Your task to perform on an android device: turn off smart reply in the gmail app Image 0: 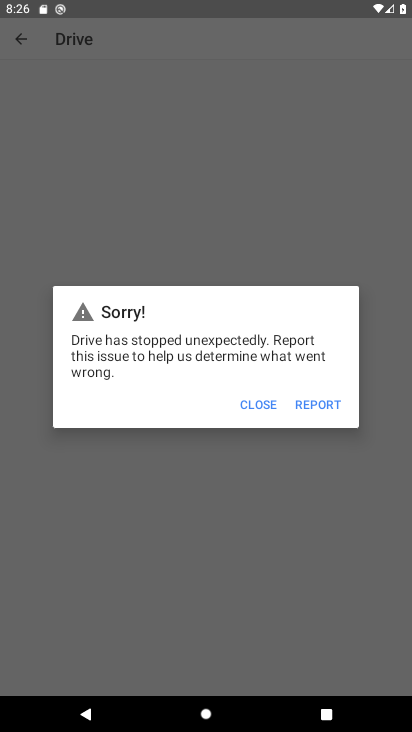
Step 0: press home button
Your task to perform on an android device: turn off smart reply in the gmail app Image 1: 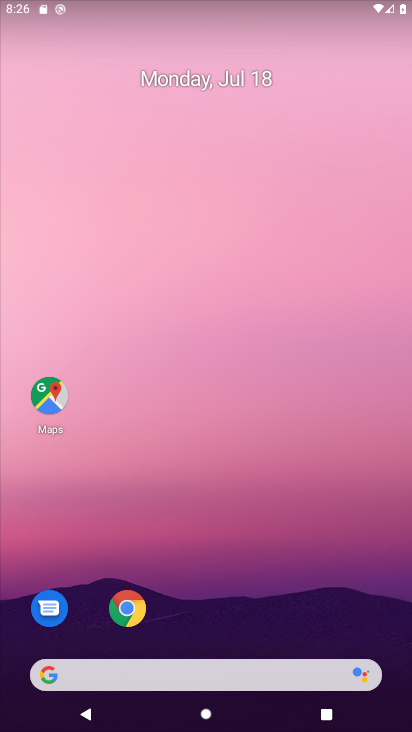
Step 1: drag from (174, 678) to (366, 143)
Your task to perform on an android device: turn off smart reply in the gmail app Image 2: 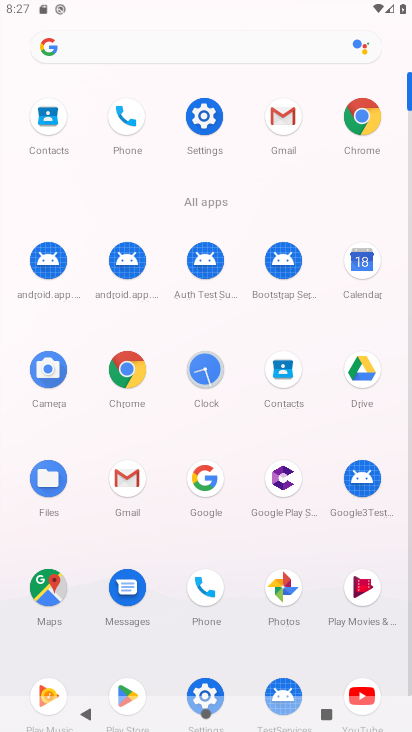
Step 2: click (284, 114)
Your task to perform on an android device: turn off smart reply in the gmail app Image 3: 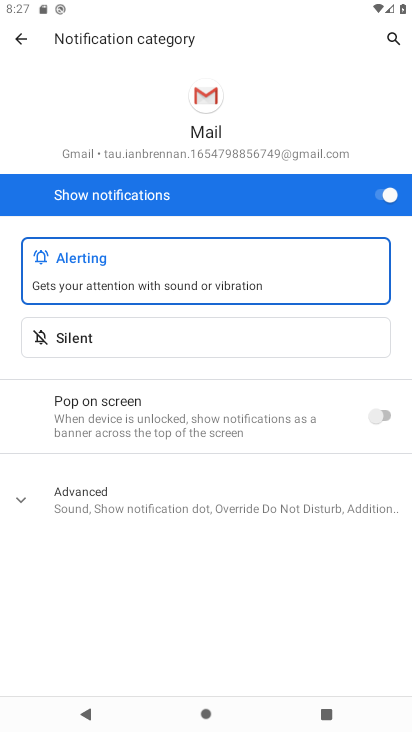
Step 3: press back button
Your task to perform on an android device: turn off smart reply in the gmail app Image 4: 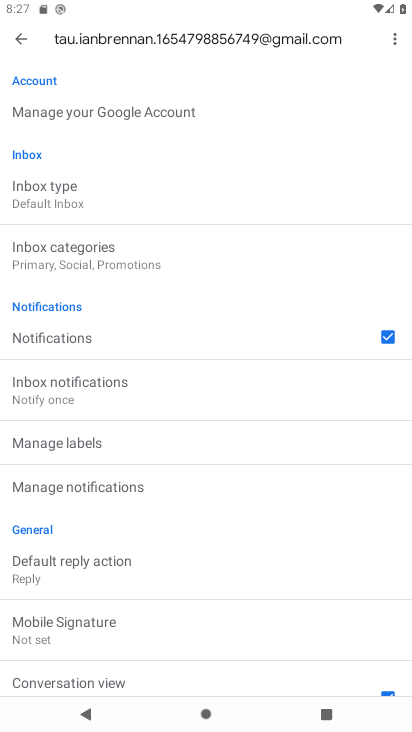
Step 4: drag from (87, 468) to (166, 358)
Your task to perform on an android device: turn off smart reply in the gmail app Image 5: 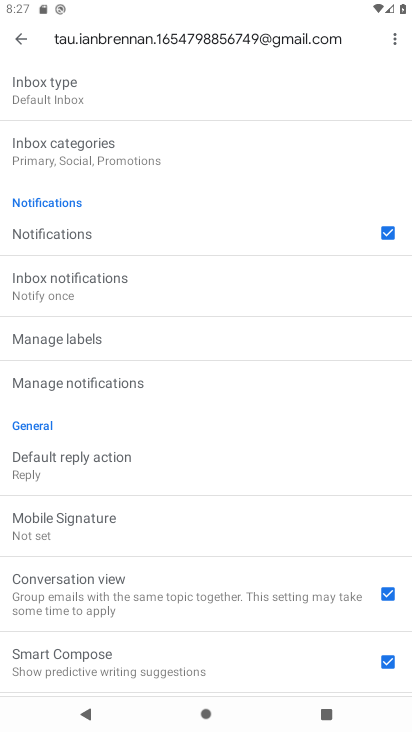
Step 5: drag from (101, 568) to (203, 442)
Your task to perform on an android device: turn off smart reply in the gmail app Image 6: 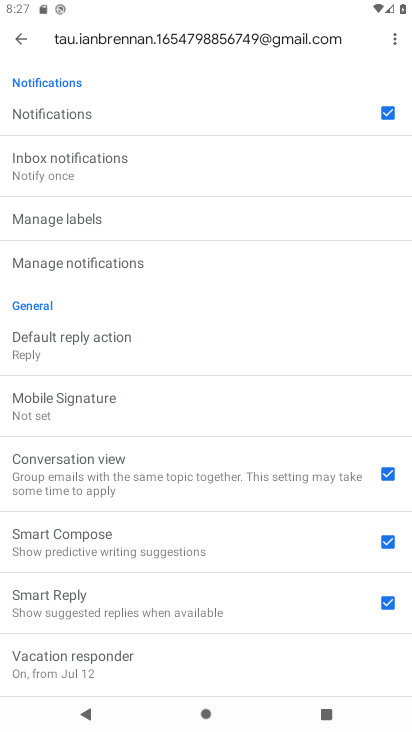
Step 6: click (387, 607)
Your task to perform on an android device: turn off smart reply in the gmail app Image 7: 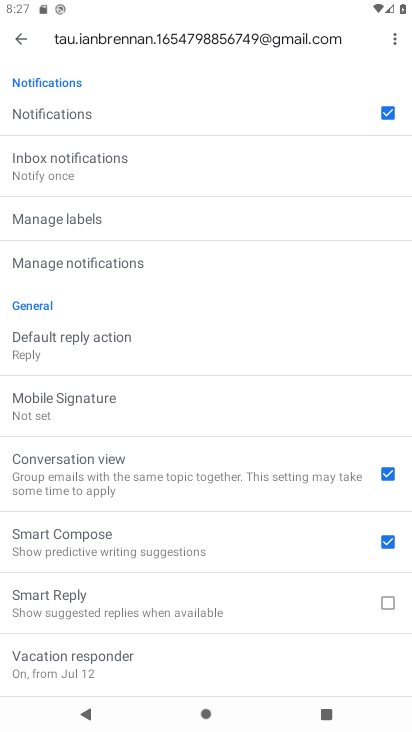
Step 7: task complete